Your task to perform on an android device: toggle location history Image 0: 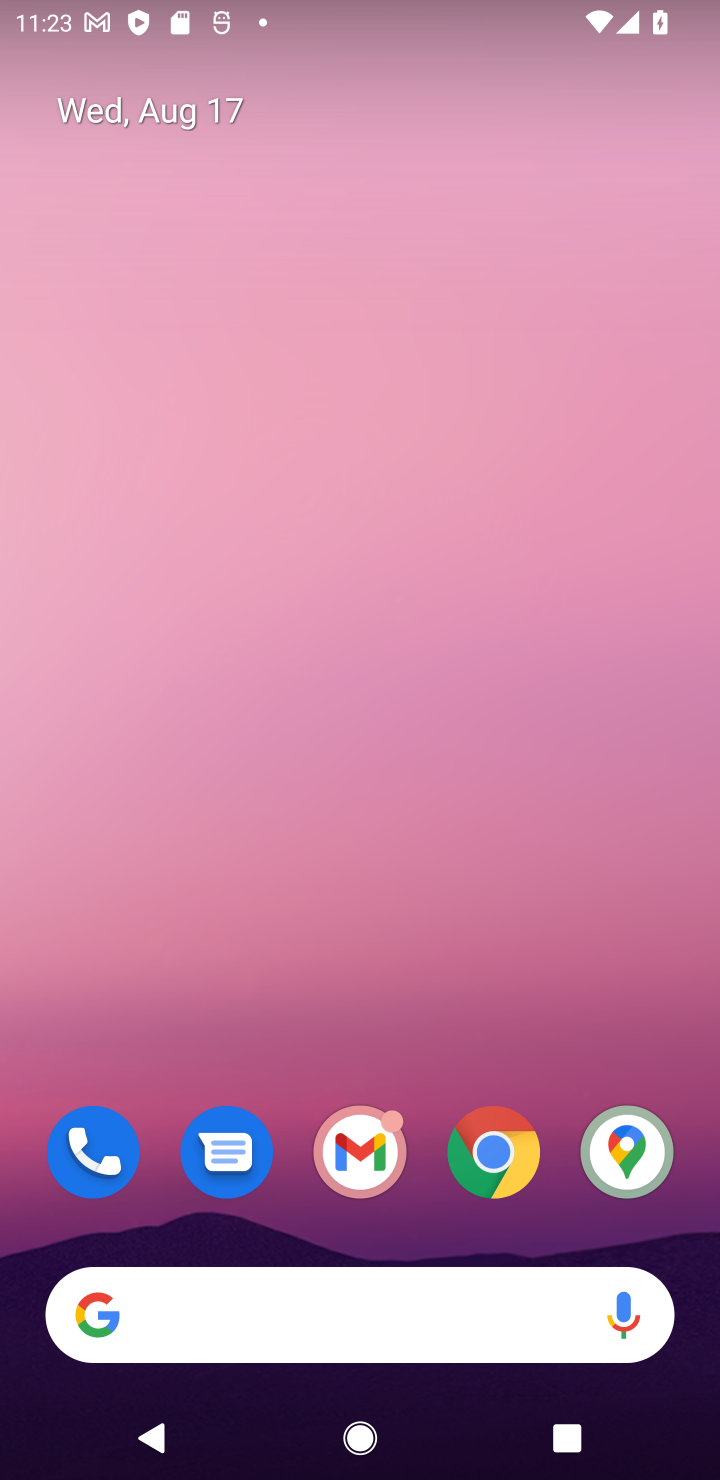
Step 0: drag from (593, 1251) to (257, 83)
Your task to perform on an android device: toggle location history Image 1: 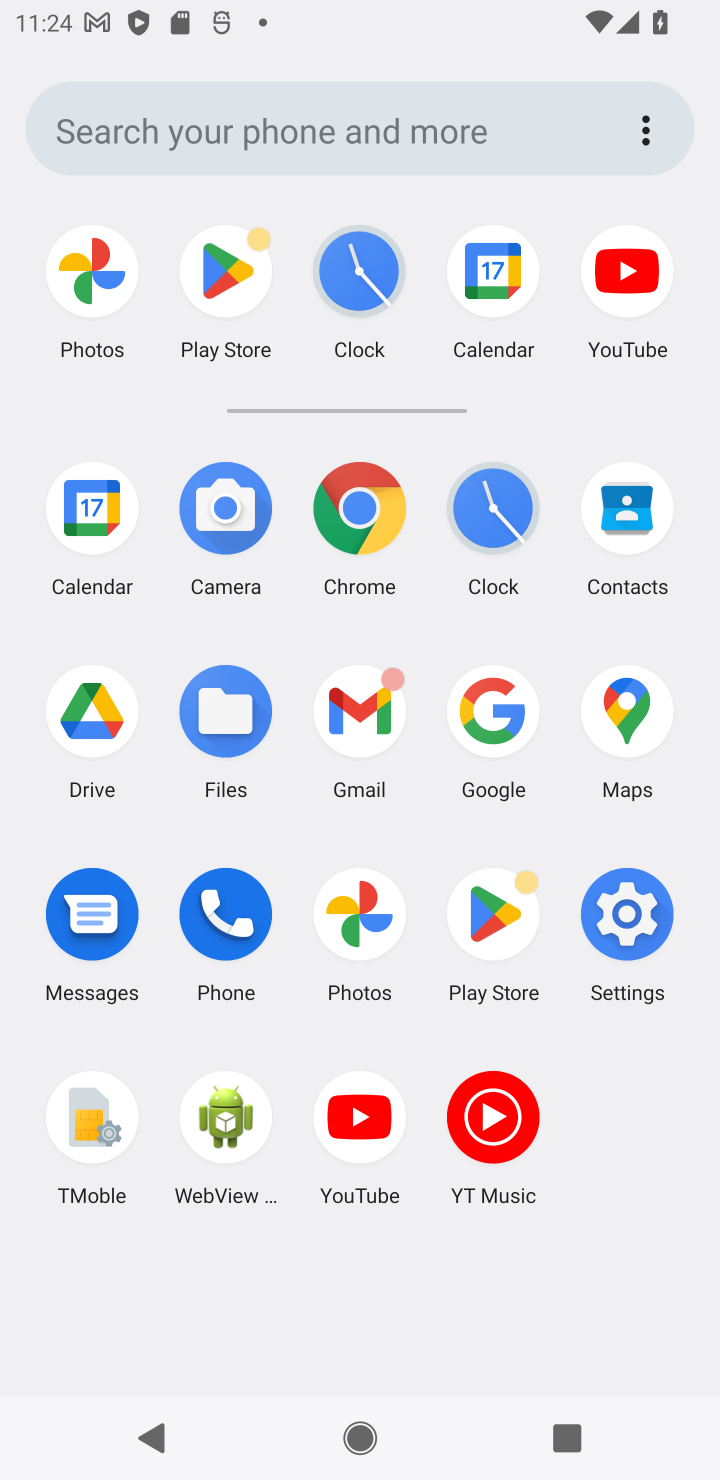
Step 1: click (636, 921)
Your task to perform on an android device: toggle location history Image 2: 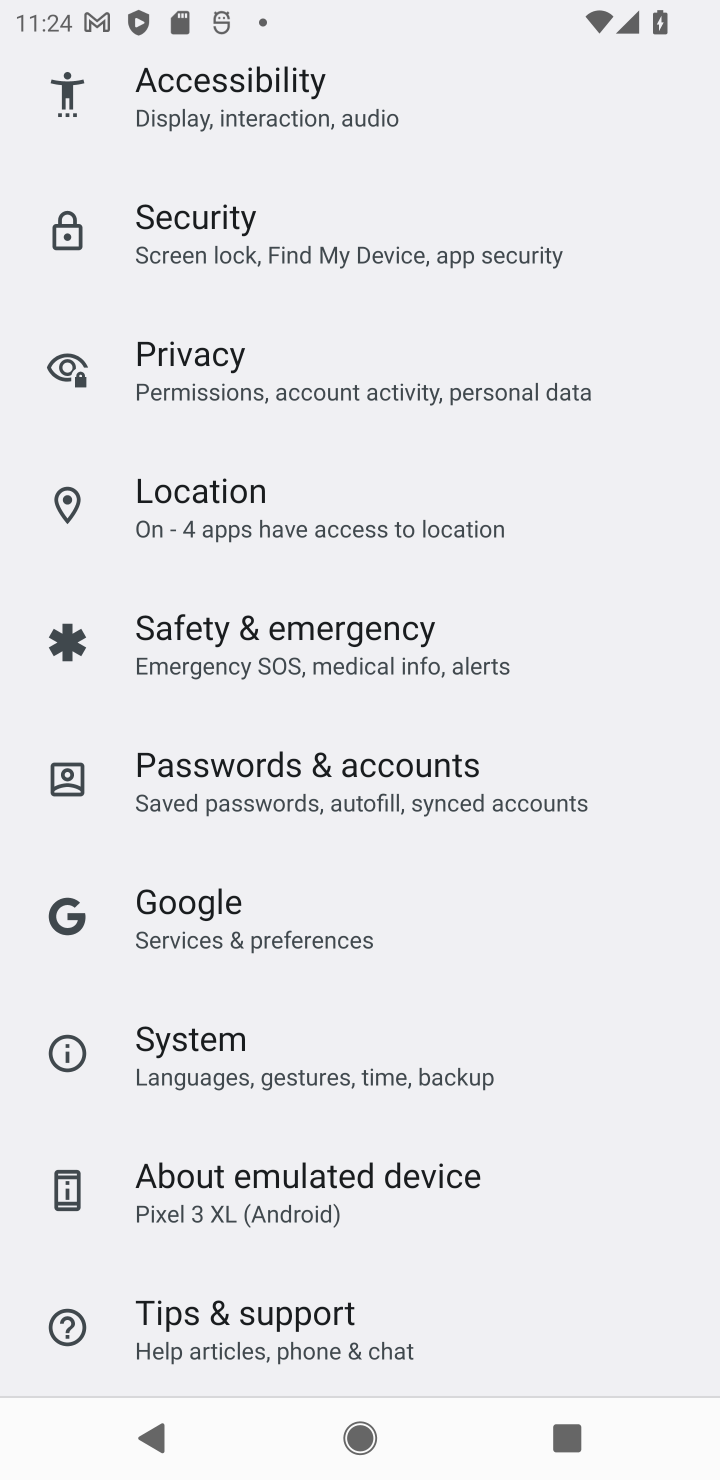
Step 2: drag from (260, 288) to (346, 778)
Your task to perform on an android device: toggle location history Image 3: 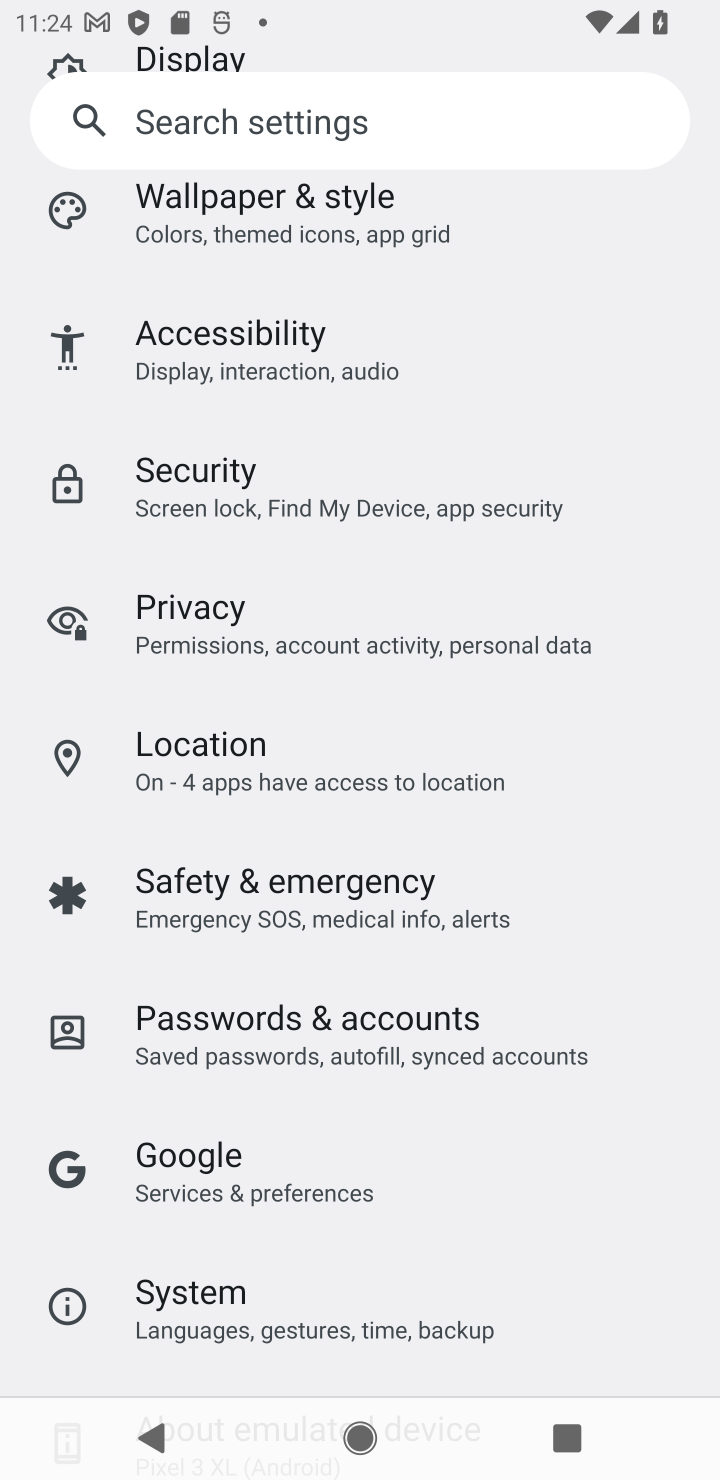
Step 3: click (263, 713)
Your task to perform on an android device: toggle location history Image 4: 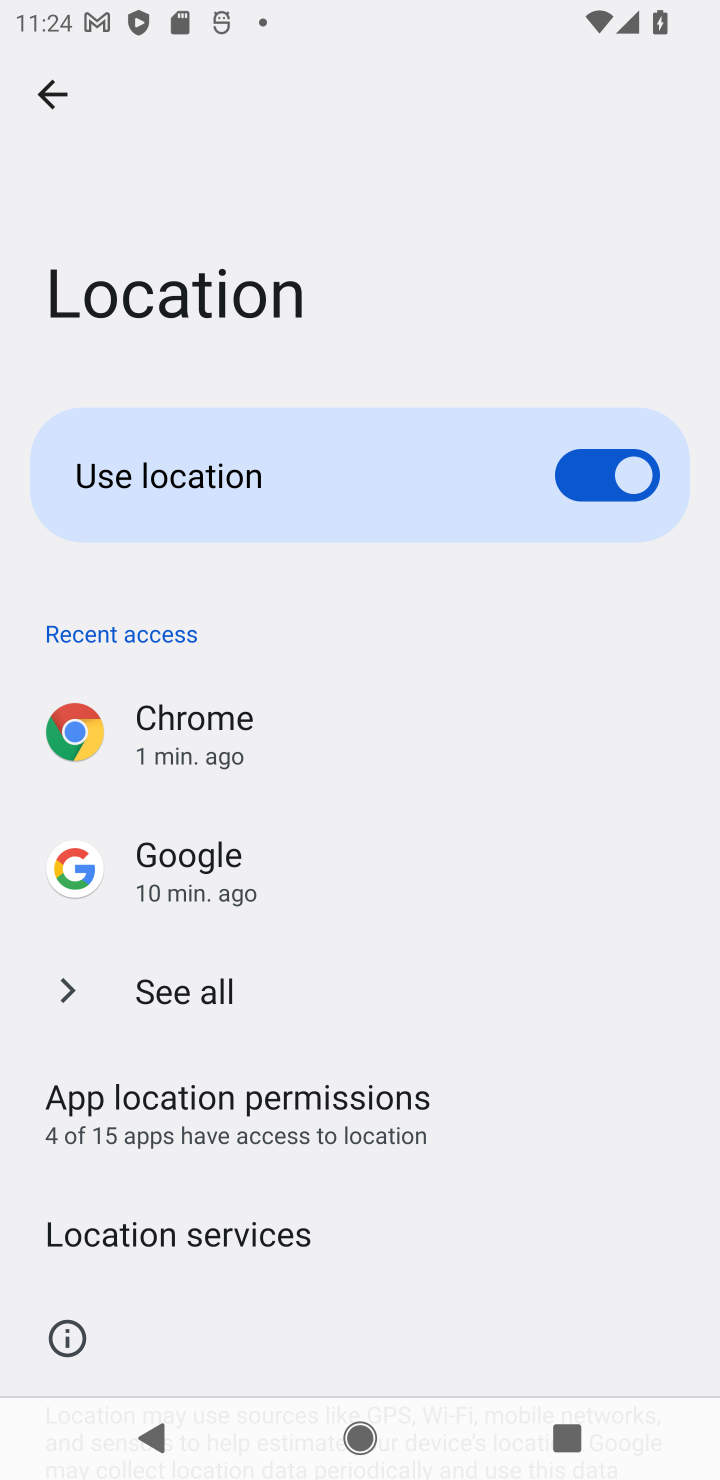
Step 4: click (312, 1231)
Your task to perform on an android device: toggle location history Image 5: 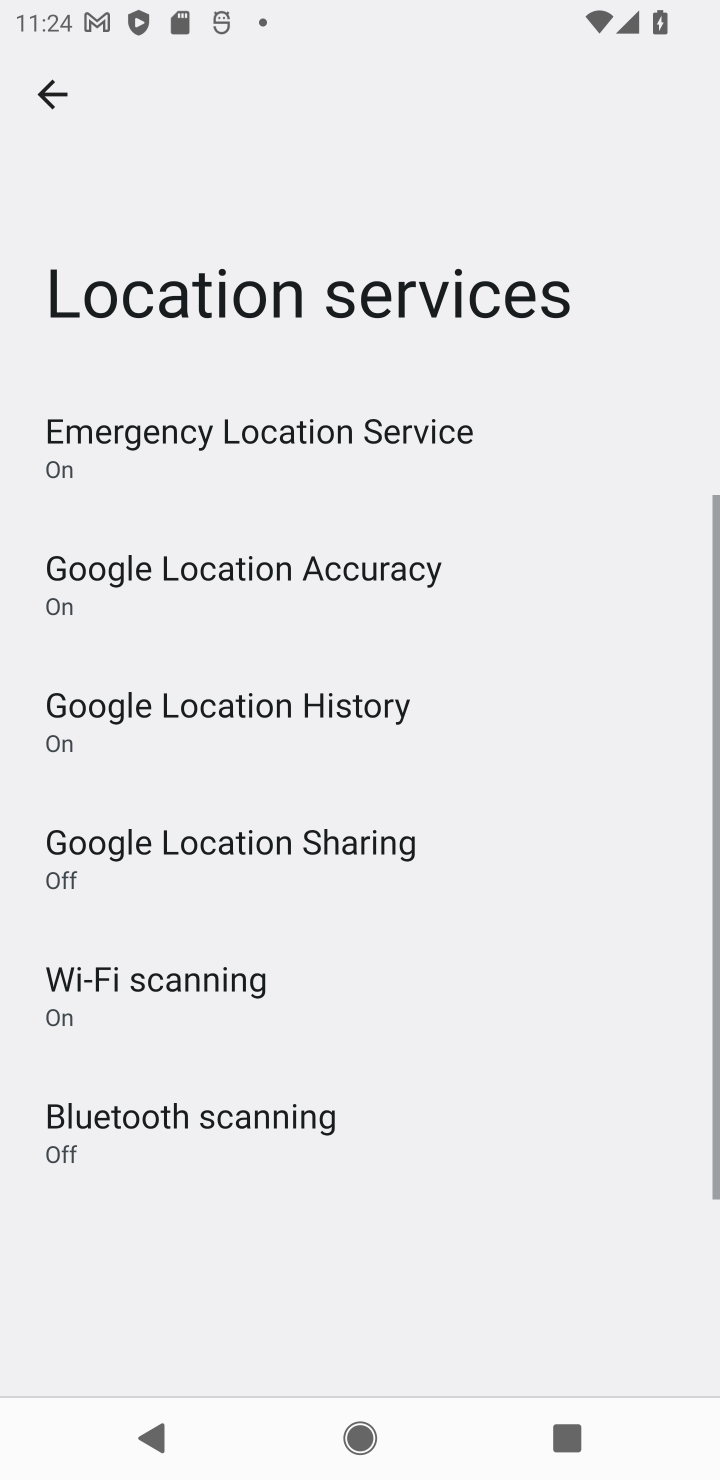
Step 5: click (410, 714)
Your task to perform on an android device: toggle location history Image 6: 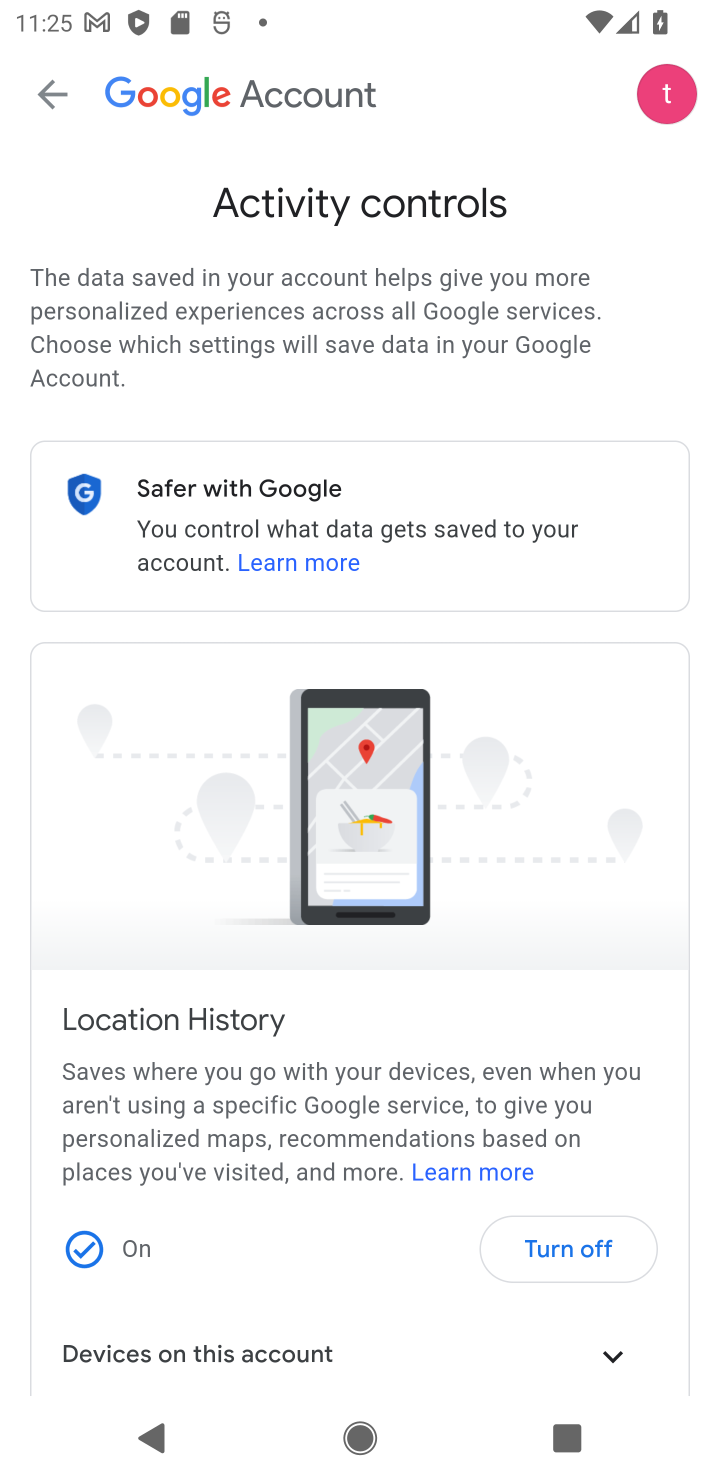
Step 6: drag from (488, 1061) to (324, 196)
Your task to perform on an android device: toggle location history Image 7: 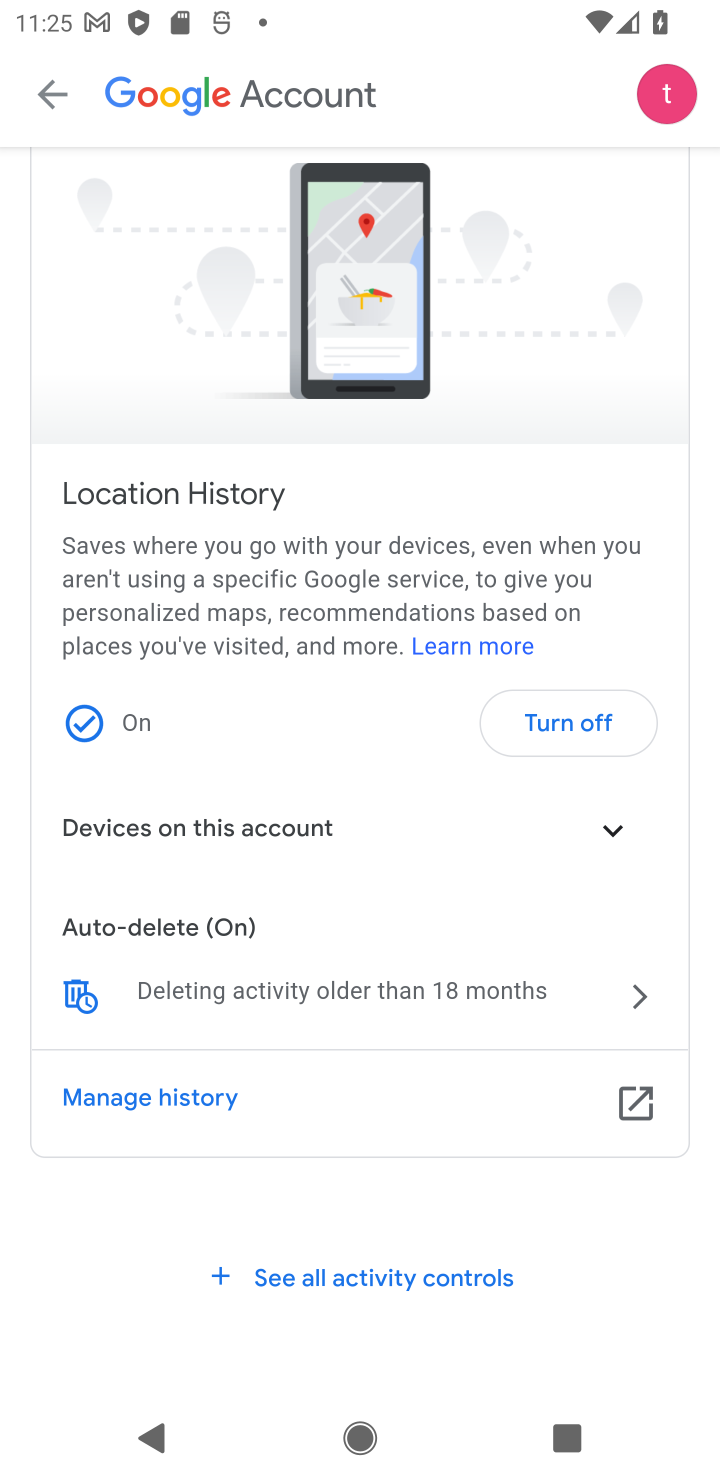
Step 7: click (301, 996)
Your task to perform on an android device: toggle location history Image 8: 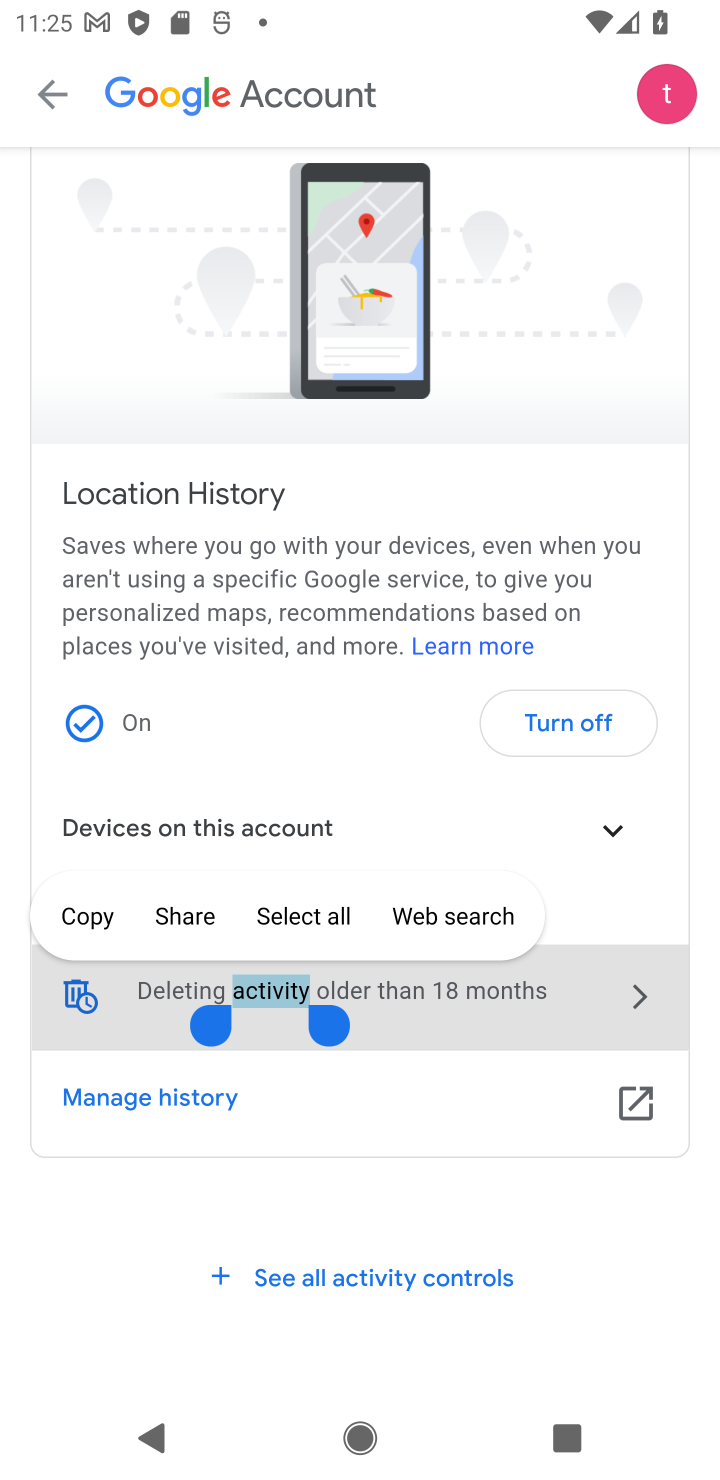
Step 8: click (301, 996)
Your task to perform on an android device: toggle location history Image 9: 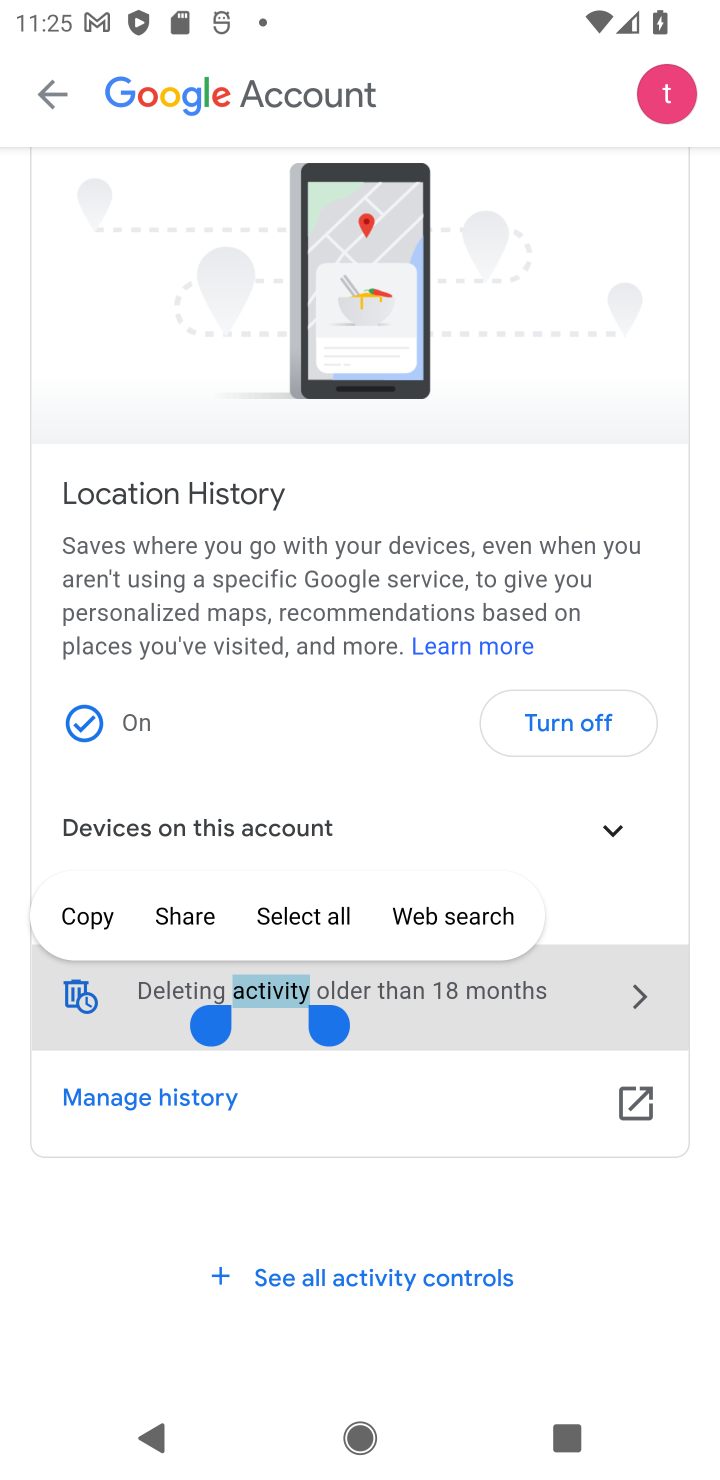
Step 9: click (430, 1003)
Your task to perform on an android device: toggle location history Image 10: 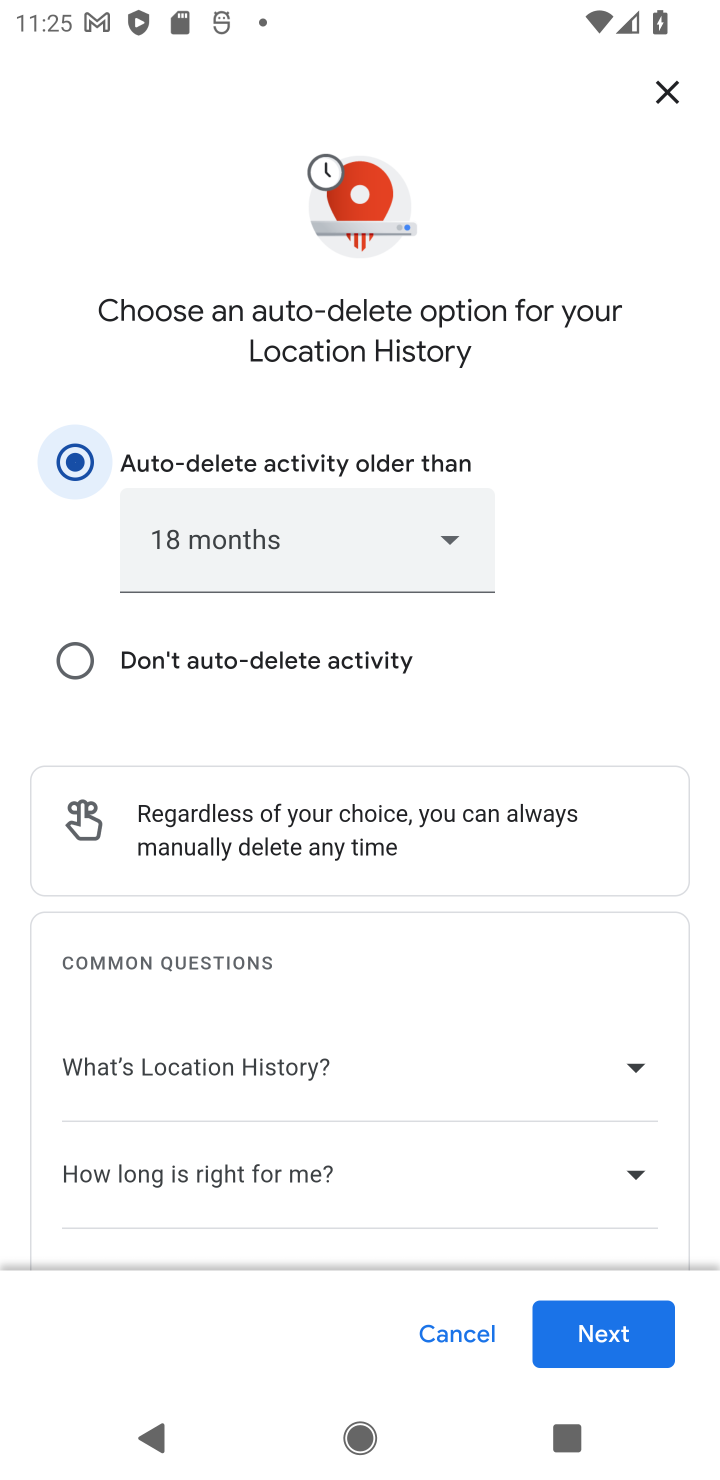
Step 10: click (593, 1330)
Your task to perform on an android device: toggle location history Image 11: 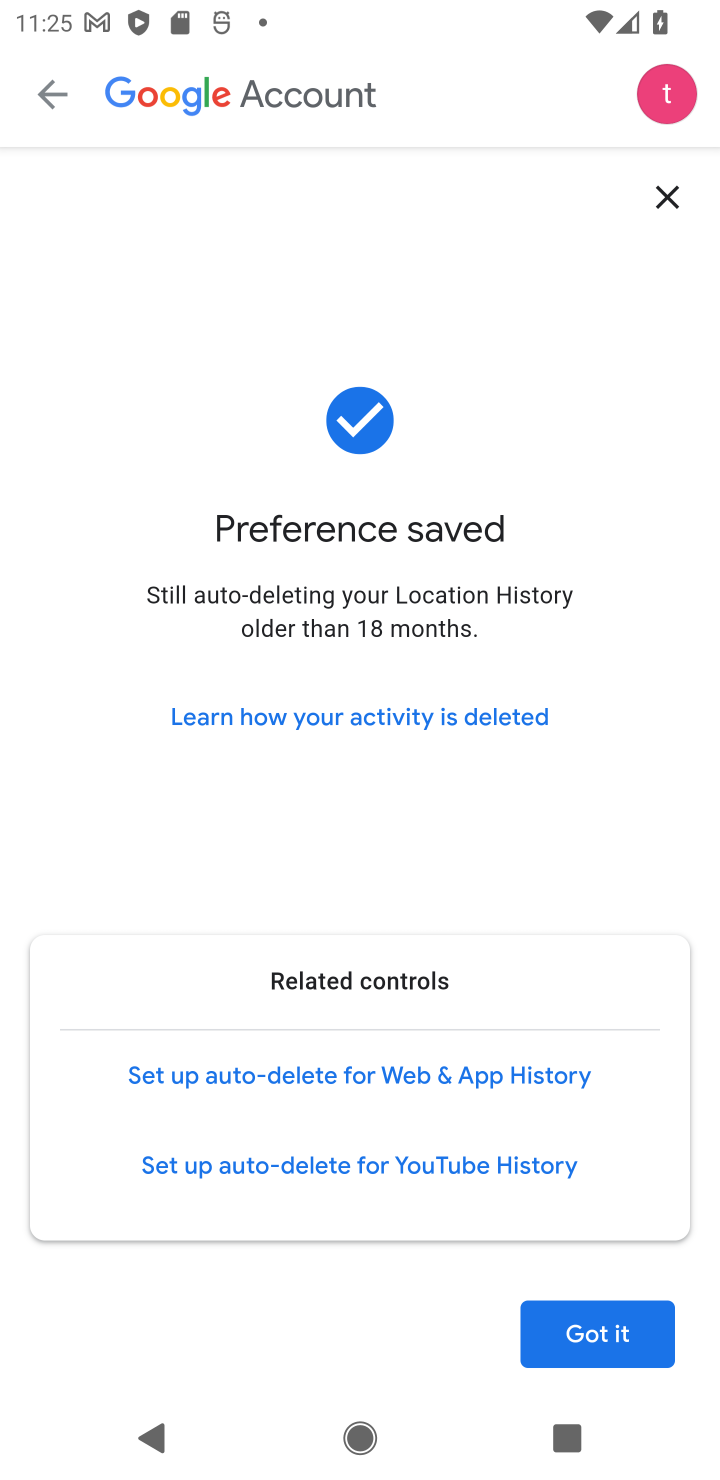
Step 11: task complete